Your task to perform on an android device: Open Yahoo.com Image 0: 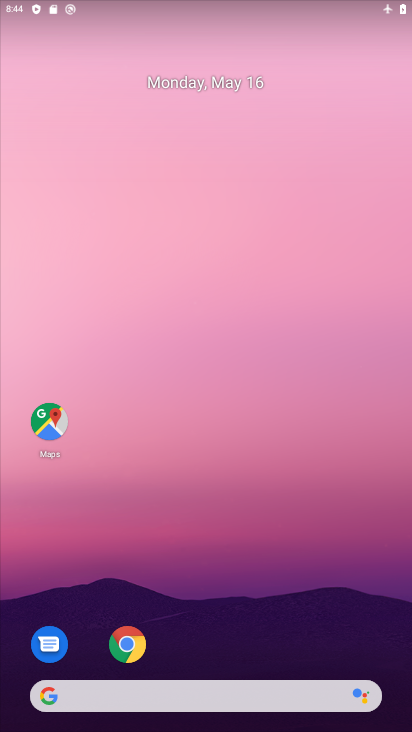
Step 0: click (289, 686)
Your task to perform on an android device: Open Yahoo.com Image 1: 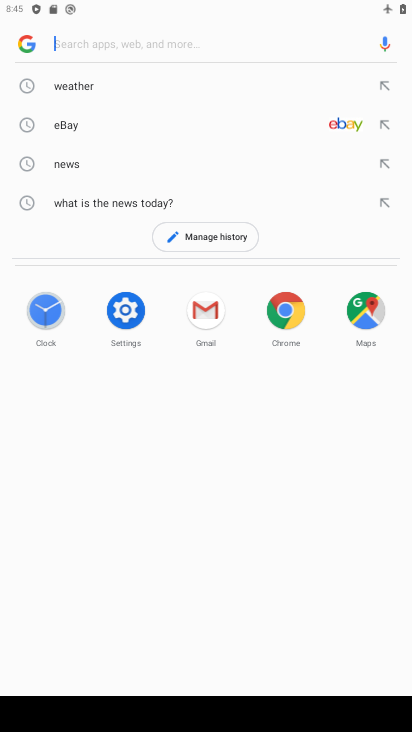
Step 1: type "yahoo.com"
Your task to perform on an android device: Open Yahoo.com Image 2: 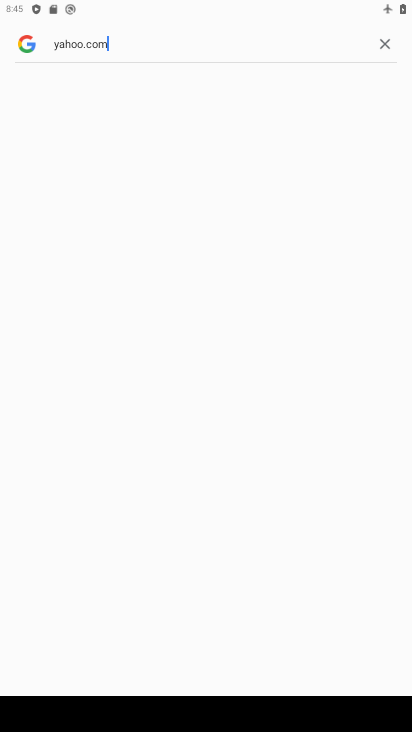
Step 2: task complete